Your task to perform on an android device: turn on javascript in the chrome app Image 0: 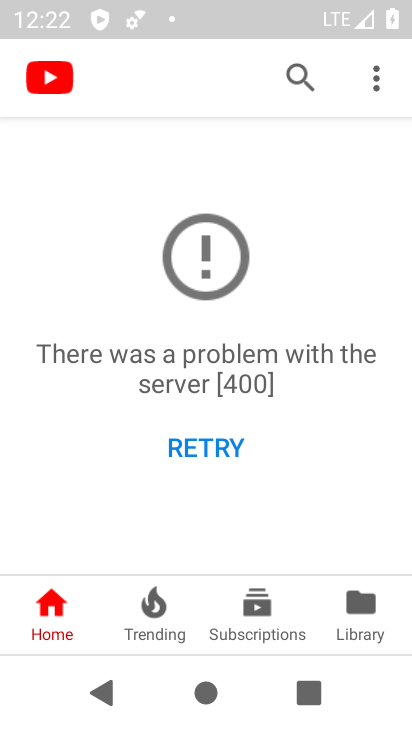
Step 0: press home button
Your task to perform on an android device: turn on javascript in the chrome app Image 1: 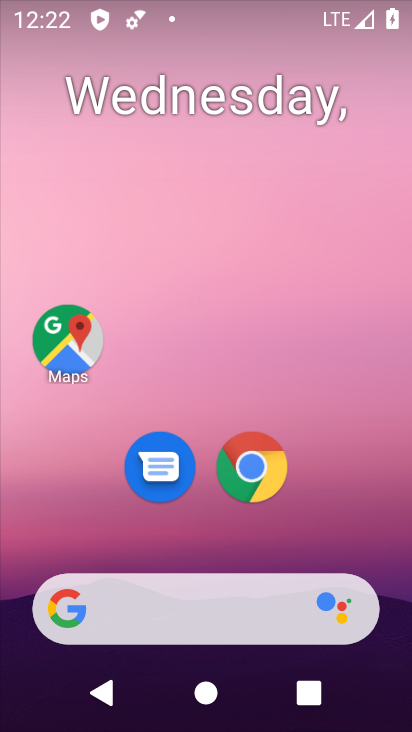
Step 1: drag from (370, 522) to (363, 158)
Your task to perform on an android device: turn on javascript in the chrome app Image 2: 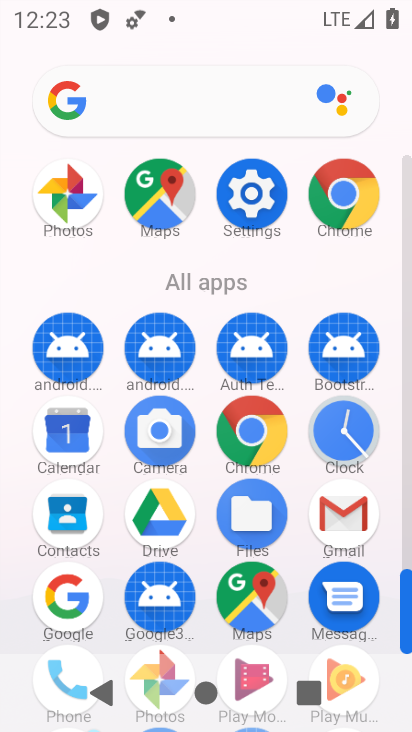
Step 2: click (262, 443)
Your task to perform on an android device: turn on javascript in the chrome app Image 3: 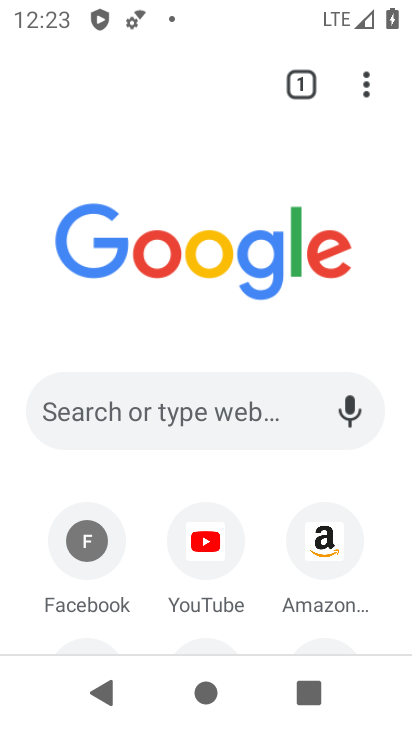
Step 3: click (369, 86)
Your task to perform on an android device: turn on javascript in the chrome app Image 4: 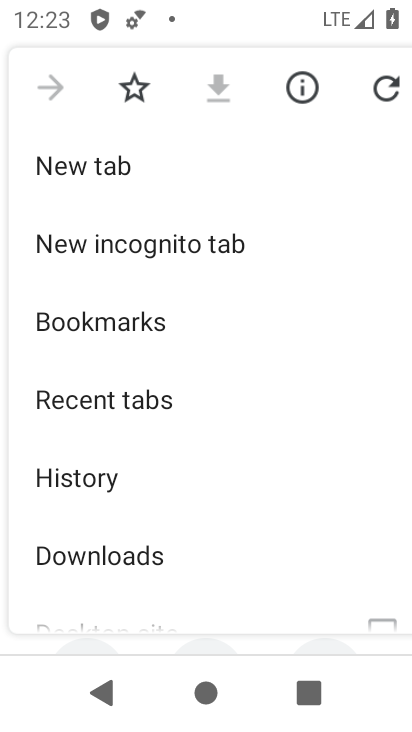
Step 4: drag from (341, 430) to (342, 366)
Your task to perform on an android device: turn on javascript in the chrome app Image 5: 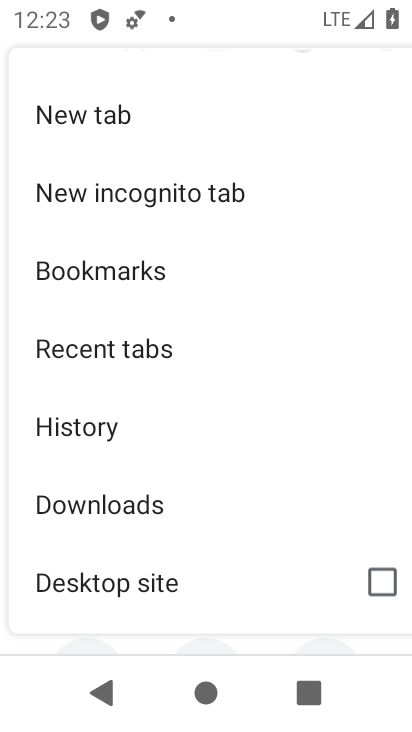
Step 5: drag from (302, 469) to (298, 357)
Your task to perform on an android device: turn on javascript in the chrome app Image 6: 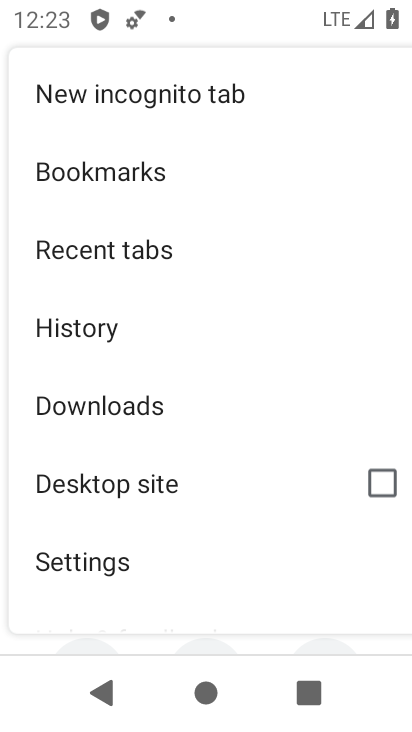
Step 6: drag from (275, 487) to (283, 355)
Your task to perform on an android device: turn on javascript in the chrome app Image 7: 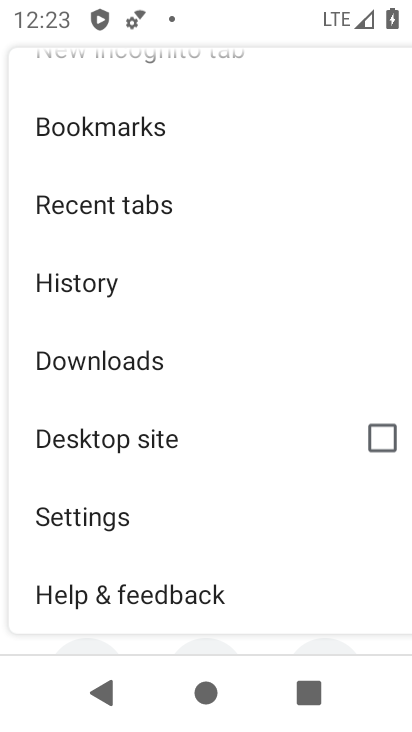
Step 7: click (124, 537)
Your task to perform on an android device: turn on javascript in the chrome app Image 8: 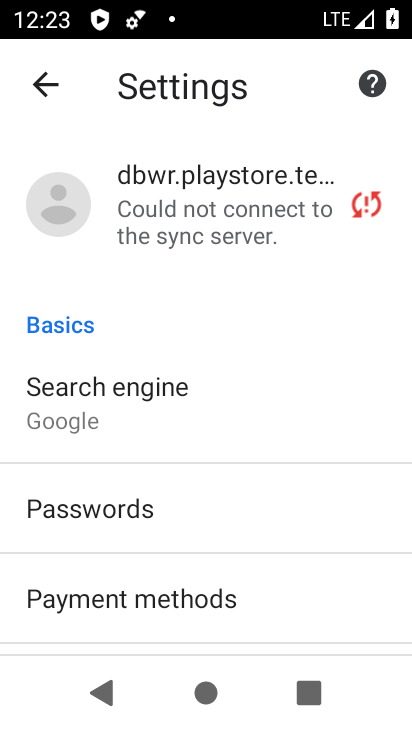
Step 8: drag from (259, 529) to (278, 378)
Your task to perform on an android device: turn on javascript in the chrome app Image 9: 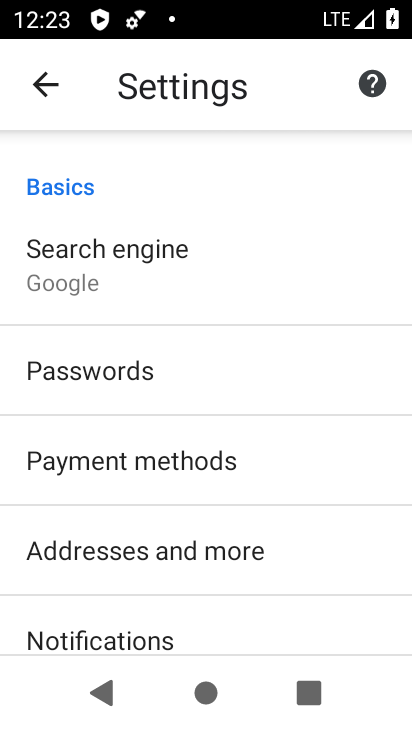
Step 9: drag from (329, 557) to (338, 437)
Your task to perform on an android device: turn on javascript in the chrome app Image 10: 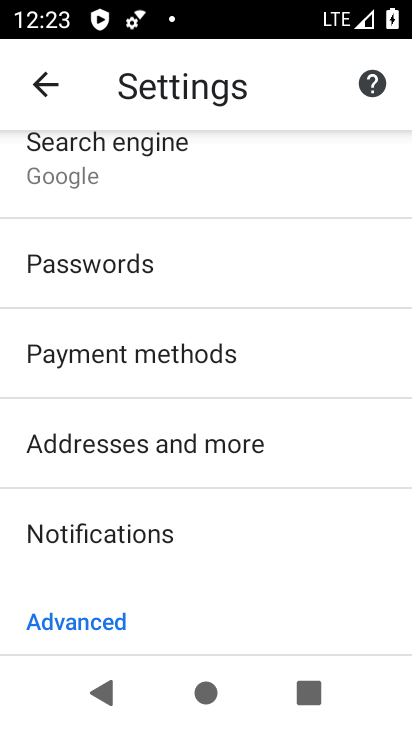
Step 10: drag from (319, 553) to (337, 389)
Your task to perform on an android device: turn on javascript in the chrome app Image 11: 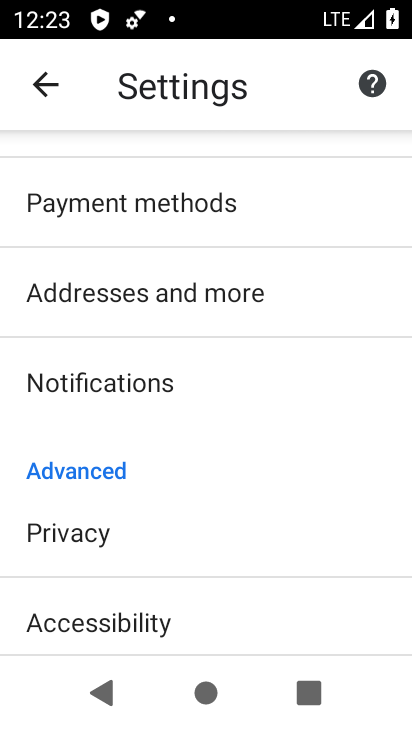
Step 11: drag from (319, 549) to (320, 341)
Your task to perform on an android device: turn on javascript in the chrome app Image 12: 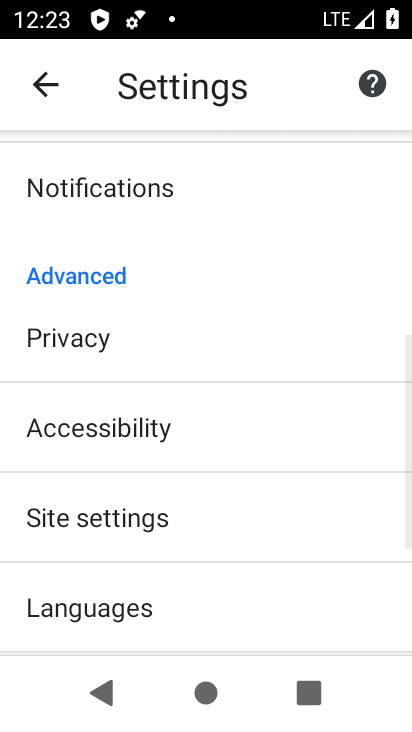
Step 12: drag from (327, 501) to (332, 350)
Your task to perform on an android device: turn on javascript in the chrome app Image 13: 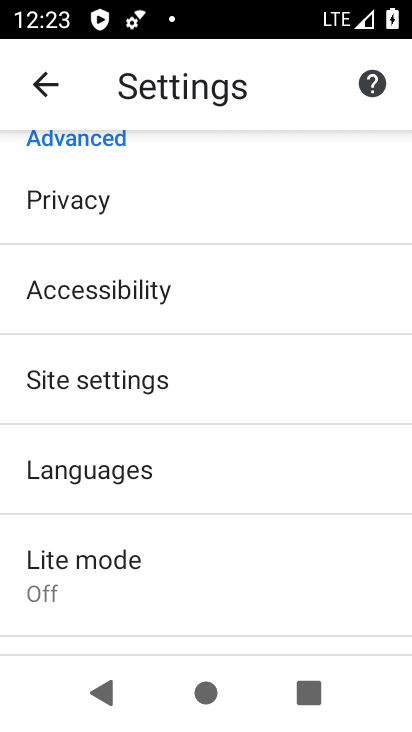
Step 13: click (297, 370)
Your task to perform on an android device: turn on javascript in the chrome app Image 14: 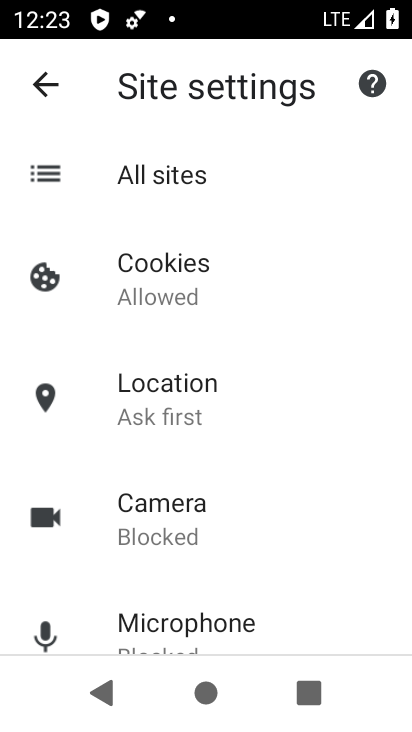
Step 14: drag from (299, 467) to (328, 344)
Your task to perform on an android device: turn on javascript in the chrome app Image 15: 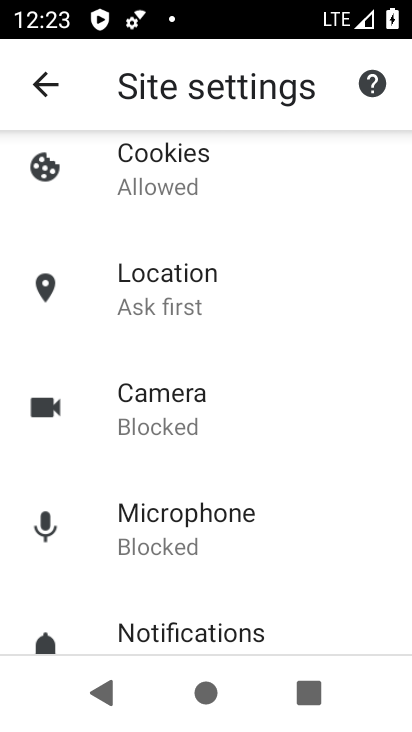
Step 15: drag from (354, 475) to (350, 278)
Your task to perform on an android device: turn on javascript in the chrome app Image 16: 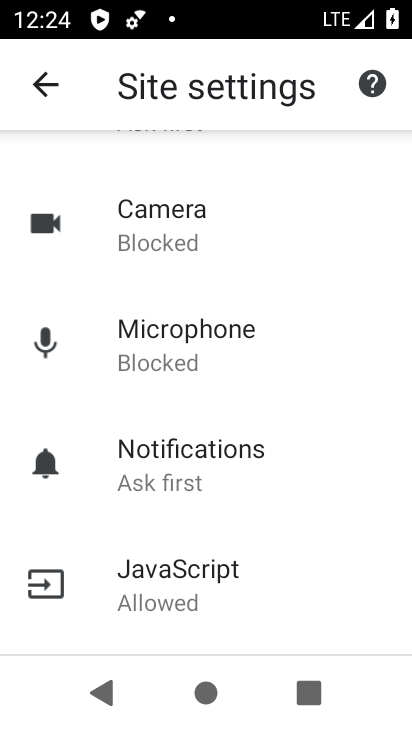
Step 16: drag from (323, 531) to (324, 352)
Your task to perform on an android device: turn on javascript in the chrome app Image 17: 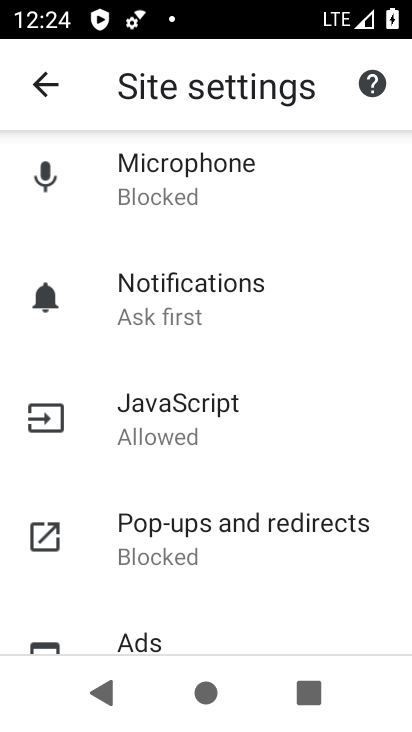
Step 17: click (237, 432)
Your task to perform on an android device: turn on javascript in the chrome app Image 18: 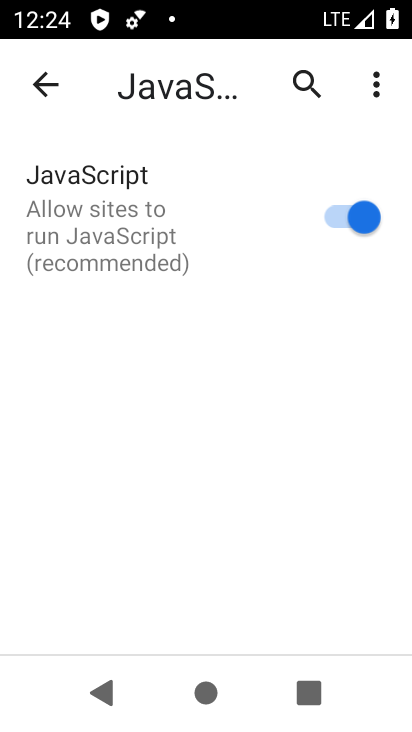
Step 18: task complete